Your task to perform on an android device: Open the Play Movies app and select the watchlist tab. Image 0: 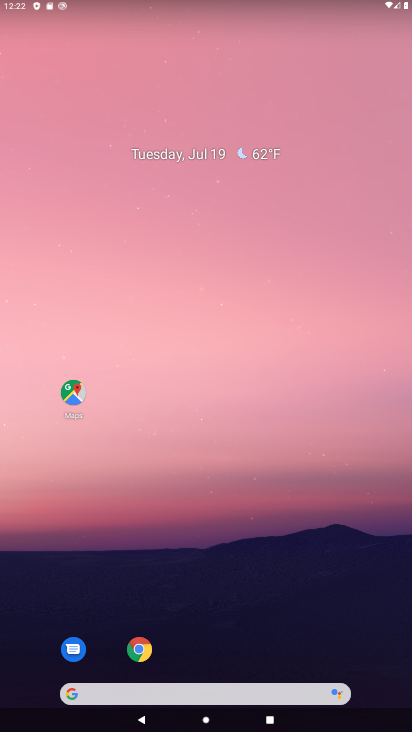
Step 0: drag from (199, 666) to (237, 159)
Your task to perform on an android device: Open the Play Movies app and select the watchlist tab. Image 1: 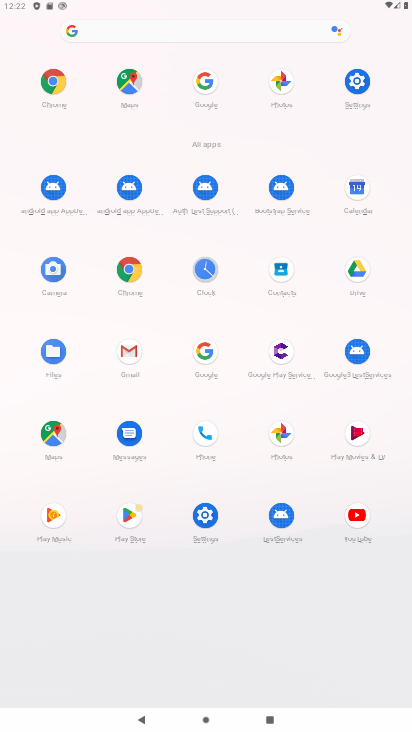
Step 1: click (351, 435)
Your task to perform on an android device: Open the Play Movies app and select the watchlist tab. Image 2: 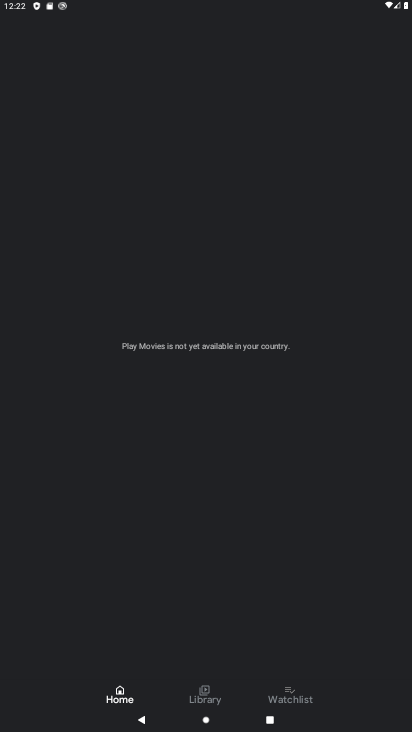
Step 2: click (287, 701)
Your task to perform on an android device: Open the Play Movies app and select the watchlist tab. Image 3: 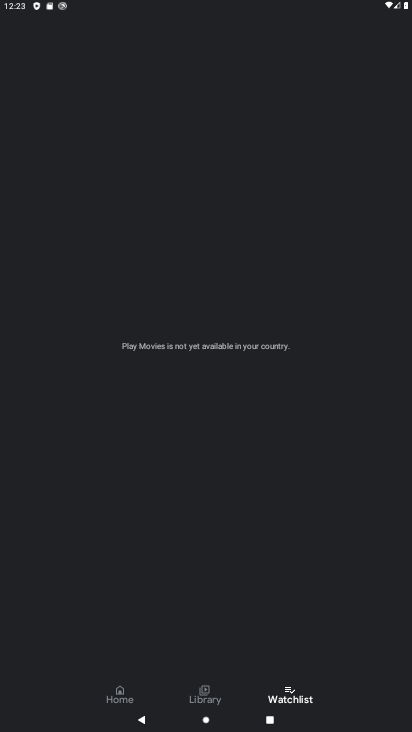
Step 3: task complete